Your task to perform on an android device: What's on the menu at Subway? Image 0: 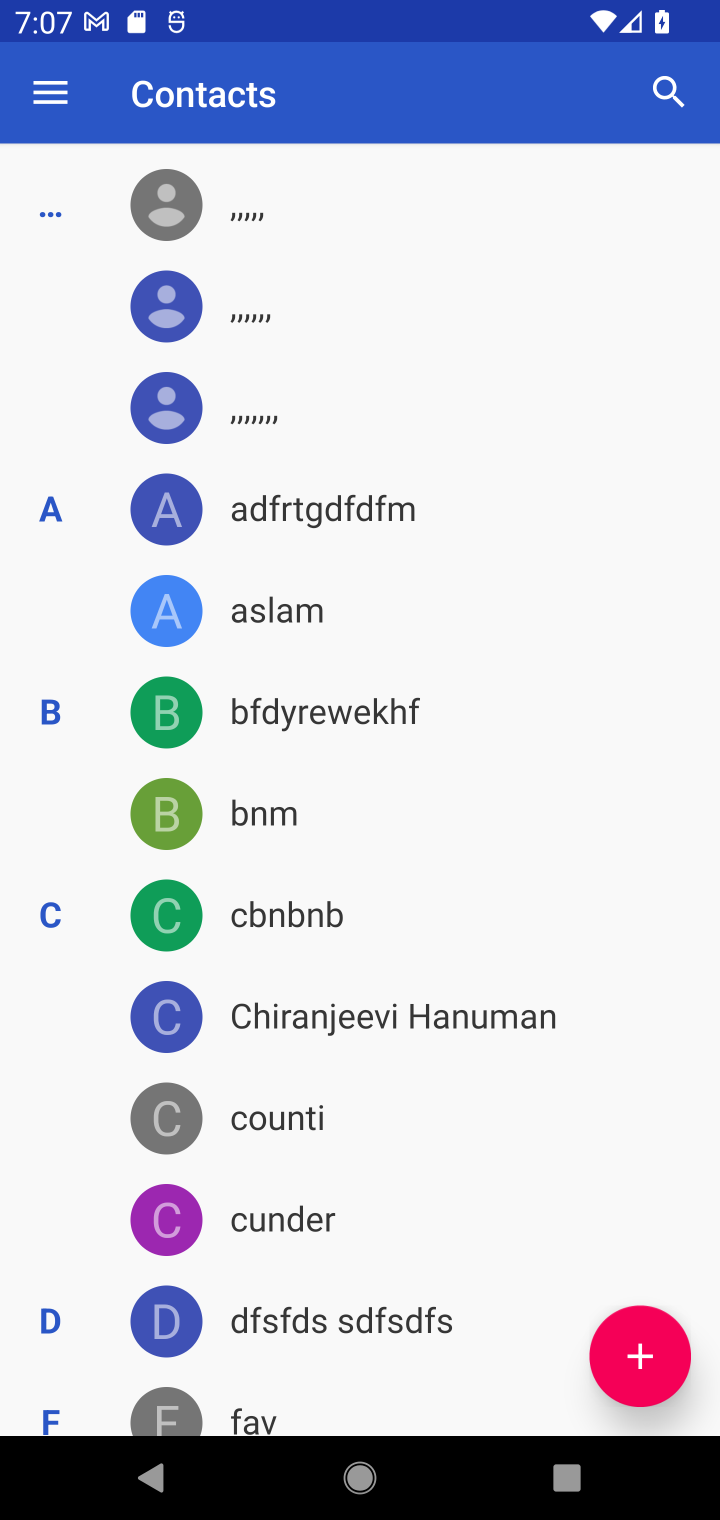
Step 0: press home button
Your task to perform on an android device: What's on the menu at Subway? Image 1: 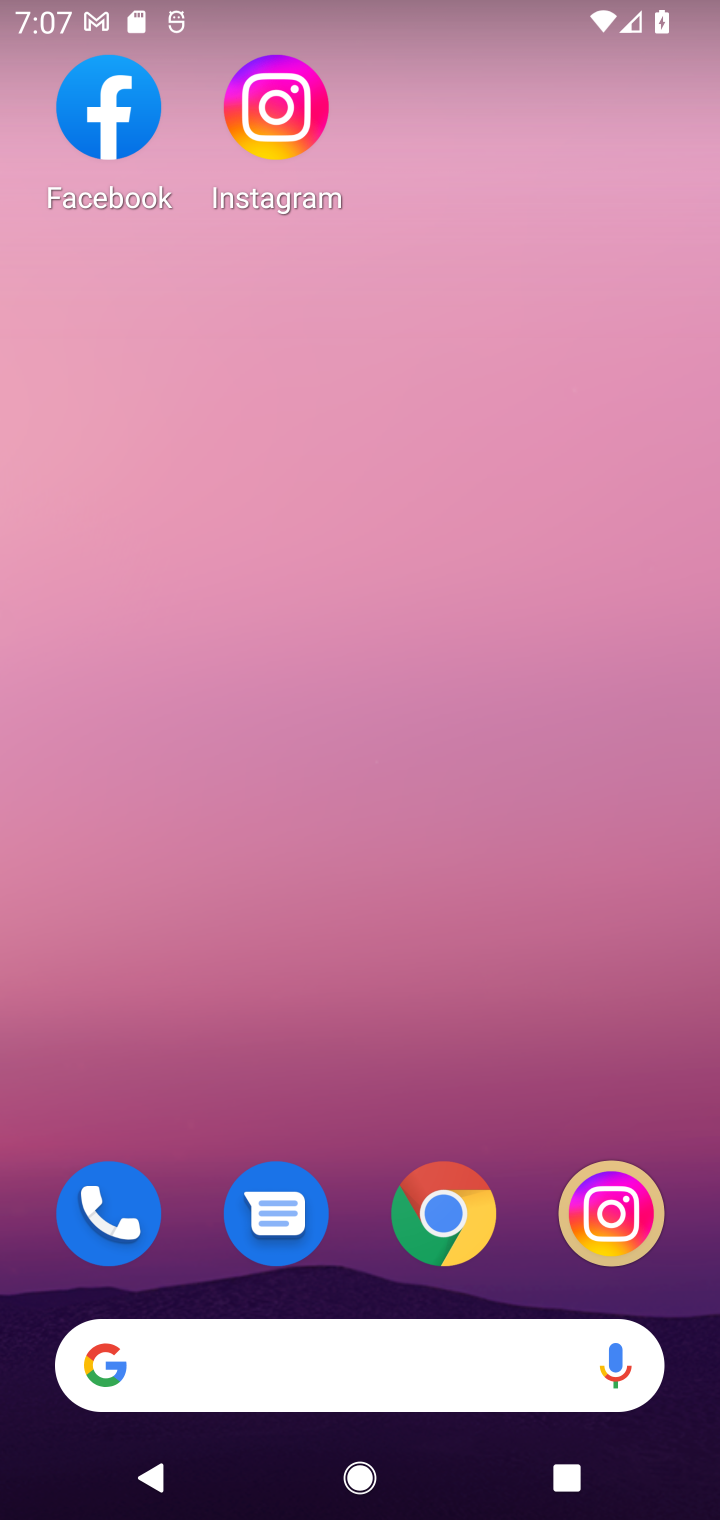
Step 1: drag from (246, 994) to (261, 419)
Your task to perform on an android device: What's on the menu at Subway? Image 2: 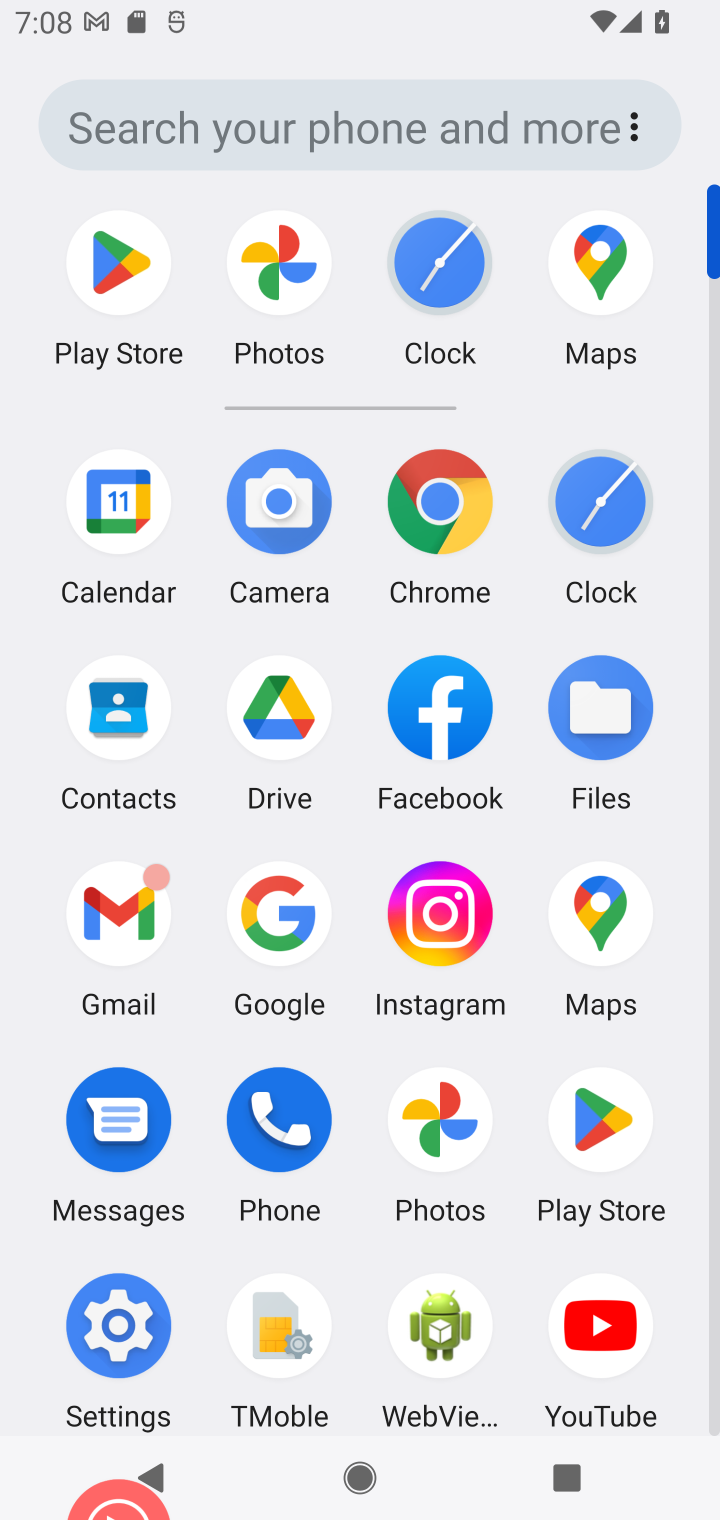
Step 2: click (260, 916)
Your task to perform on an android device: What's on the menu at Subway? Image 3: 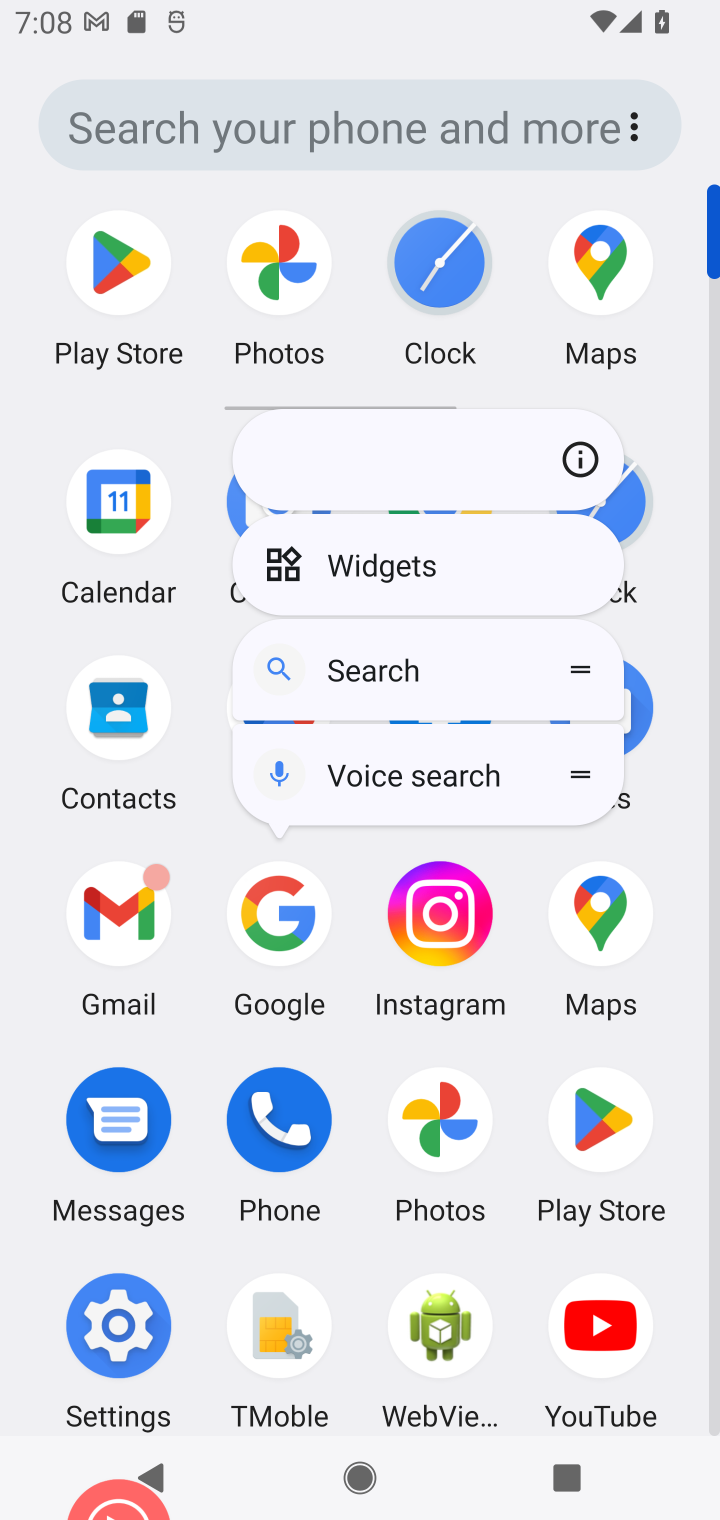
Step 3: click (263, 894)
Your task to perform on an android device: What's on the menu at Subway? Image 4: 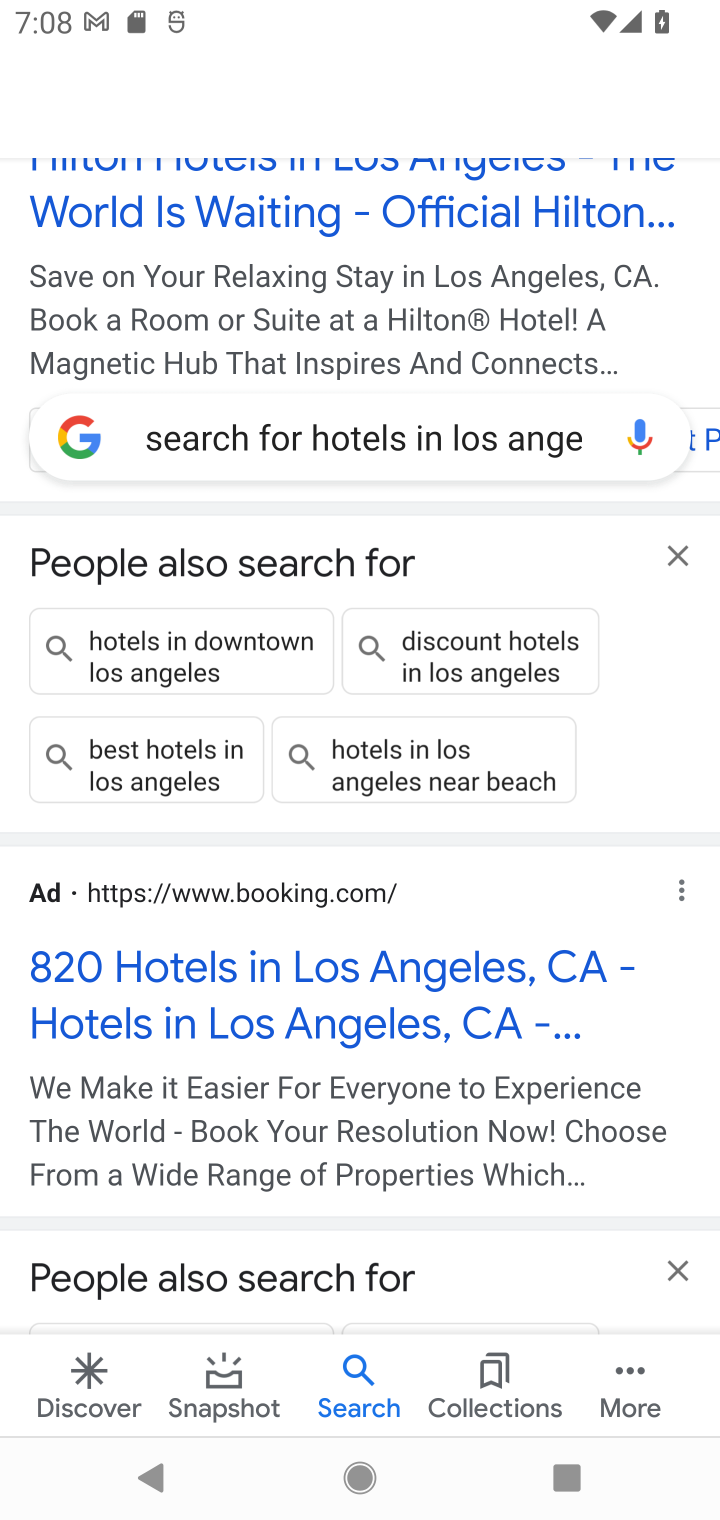
Step 4: click (286, 412)
Your task to perform on an android device: What's on the menu at Subway? Image 5: 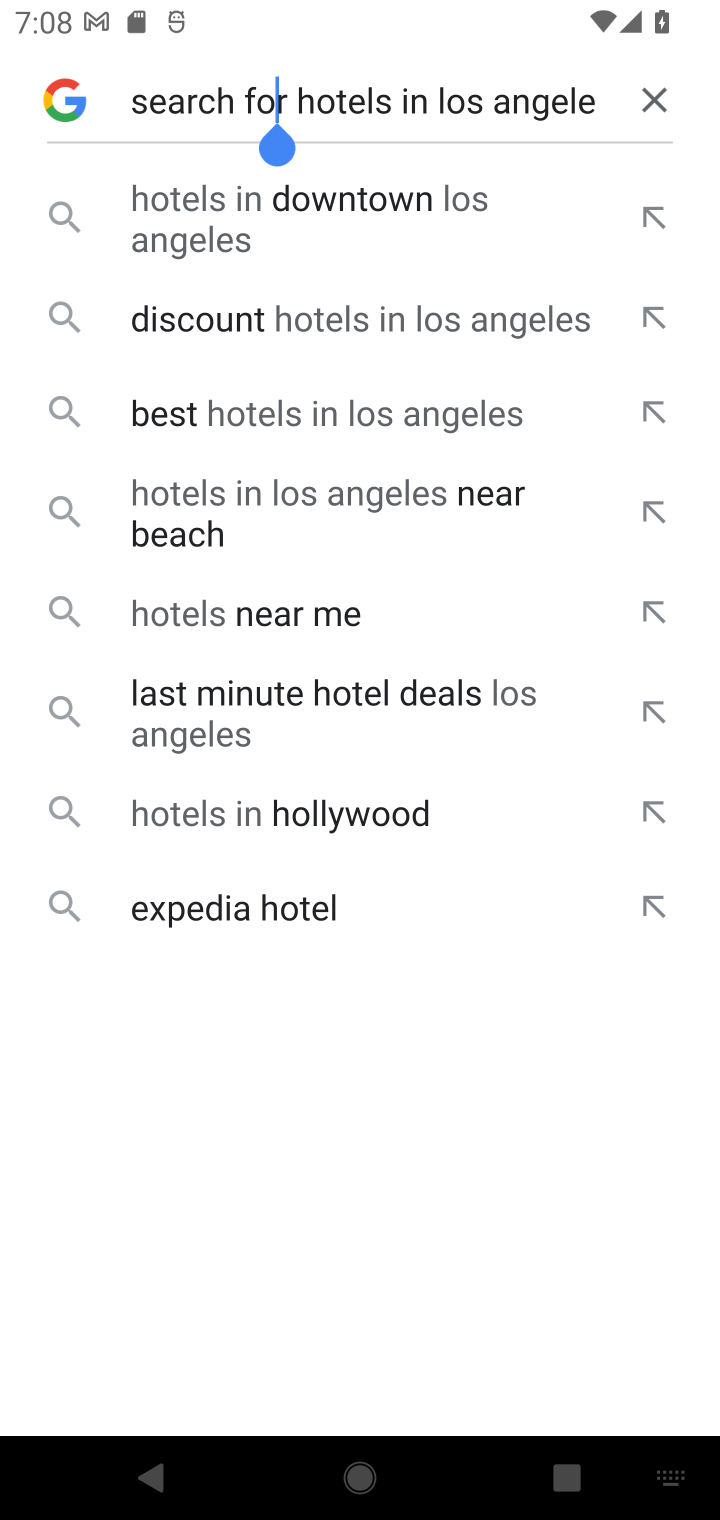
Step 5: click (653, 90)
Your task to perform on an android device: What's on the menu at Subway? Image 6: 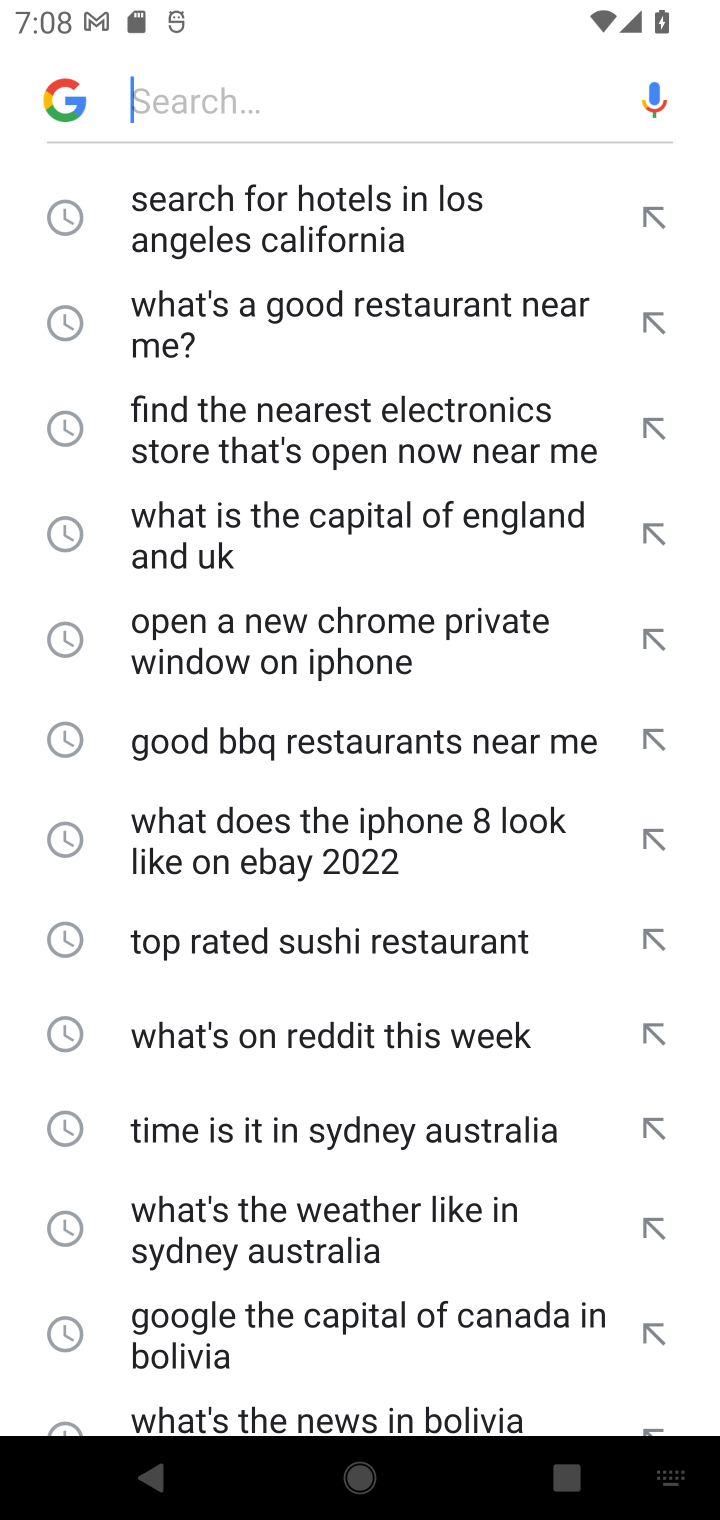
Step 6: drag from (286, 144) to (312, 72)
Your task to perform on an android device: What's on the menu at Subway? Image 7: 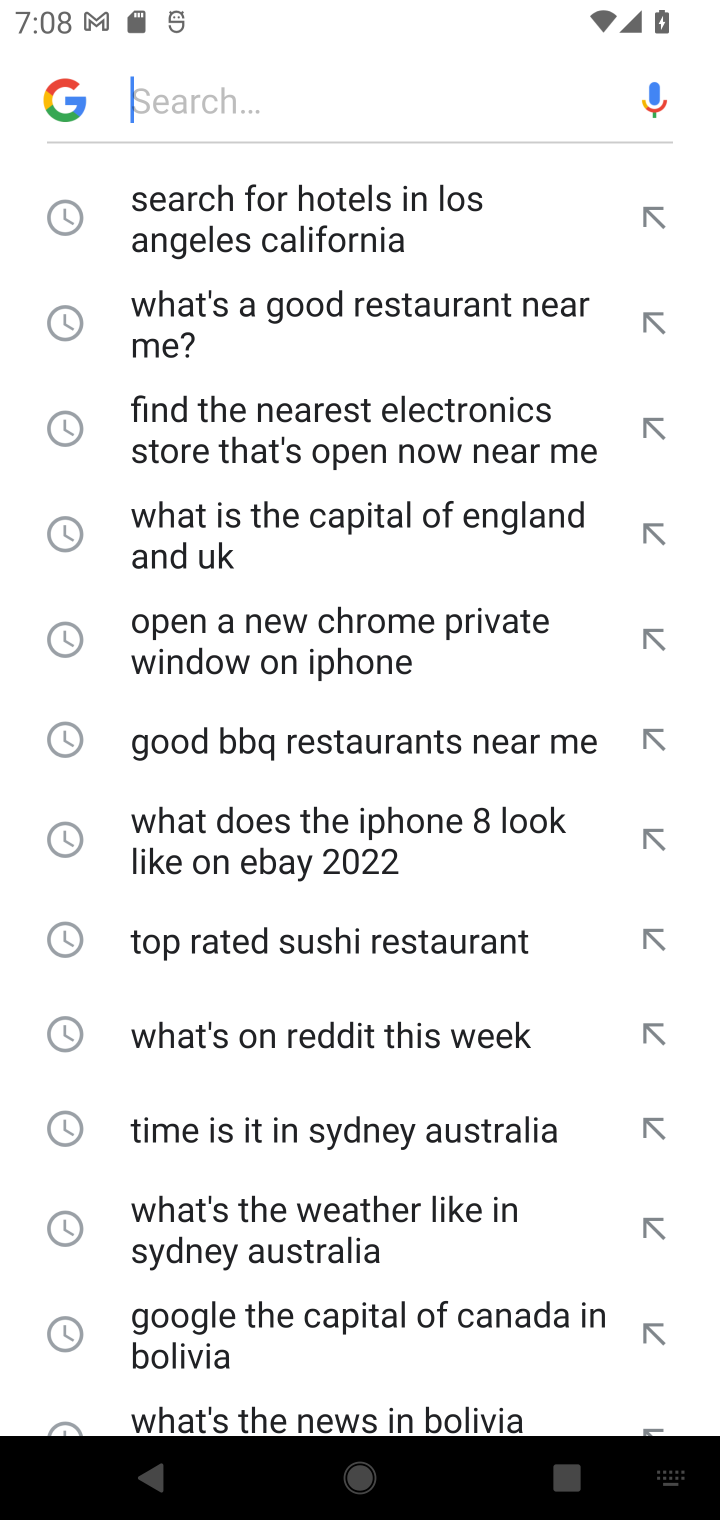
Step 7: type "What's on the menu at Subway? "
Your task to perform on an android device: What's on the menu at Subway? Image 8: 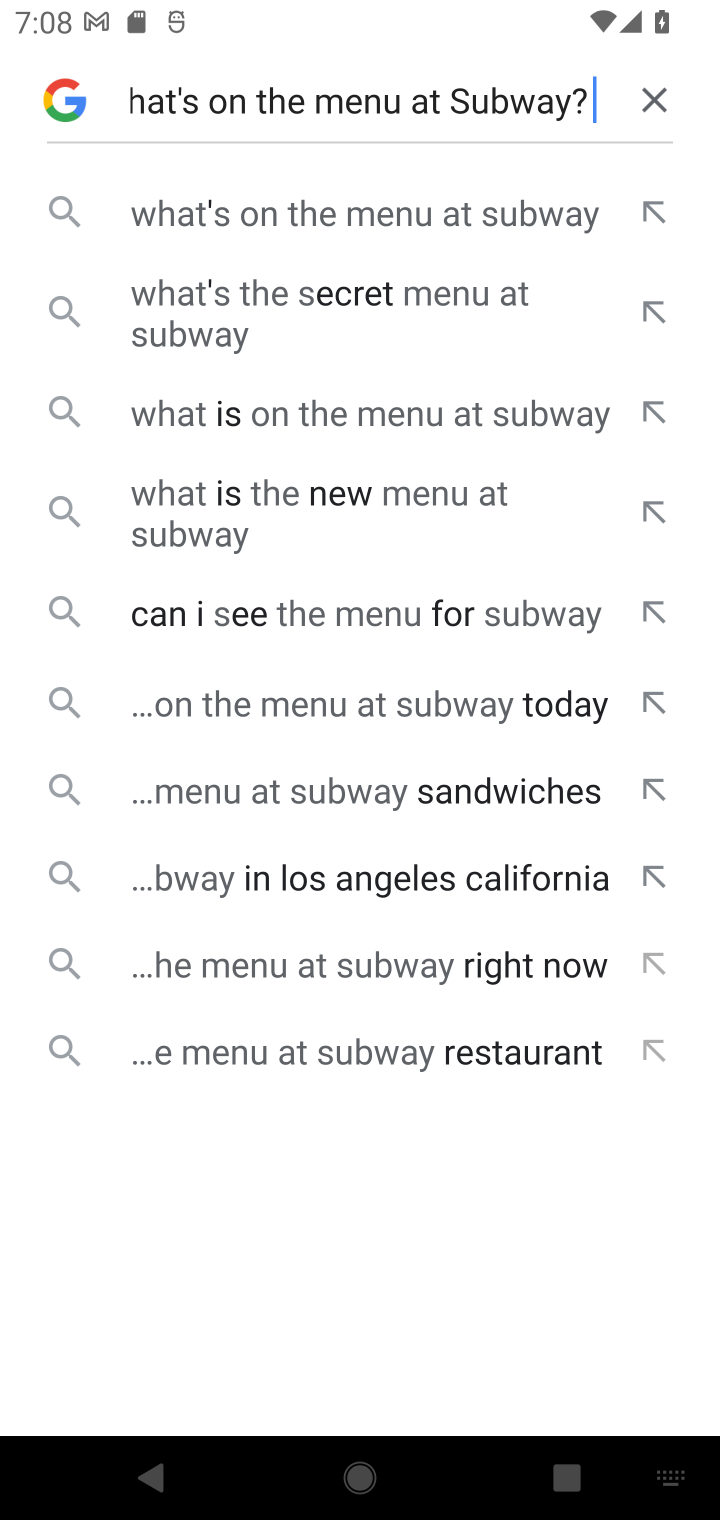
Step 8: click (281, 214)
Your task to perform on an android device: What's on the menu at Subway? Image 9: 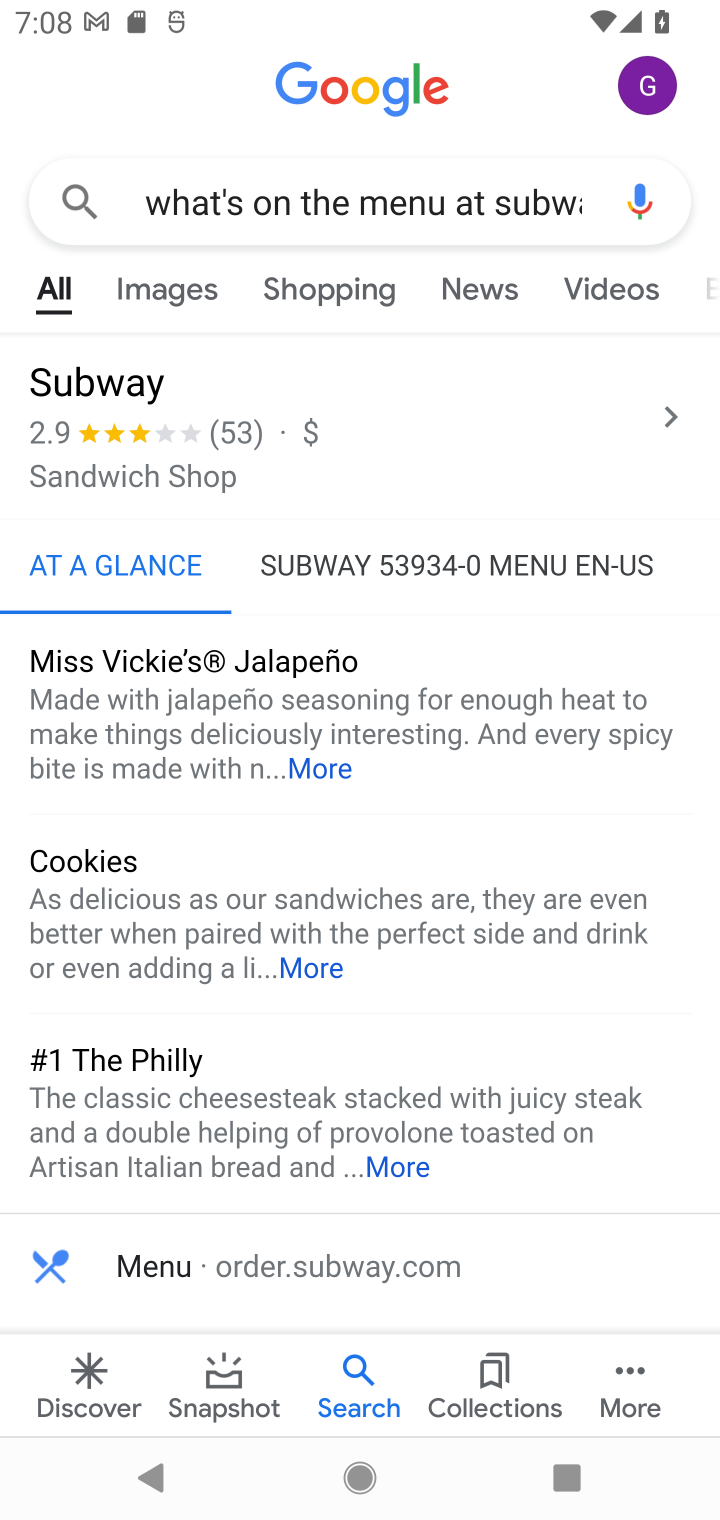
Step 9: drag from (344, 1204) to (379, 618)
Your task to perform on an android device: What's on the menu at Subway? Image 10: 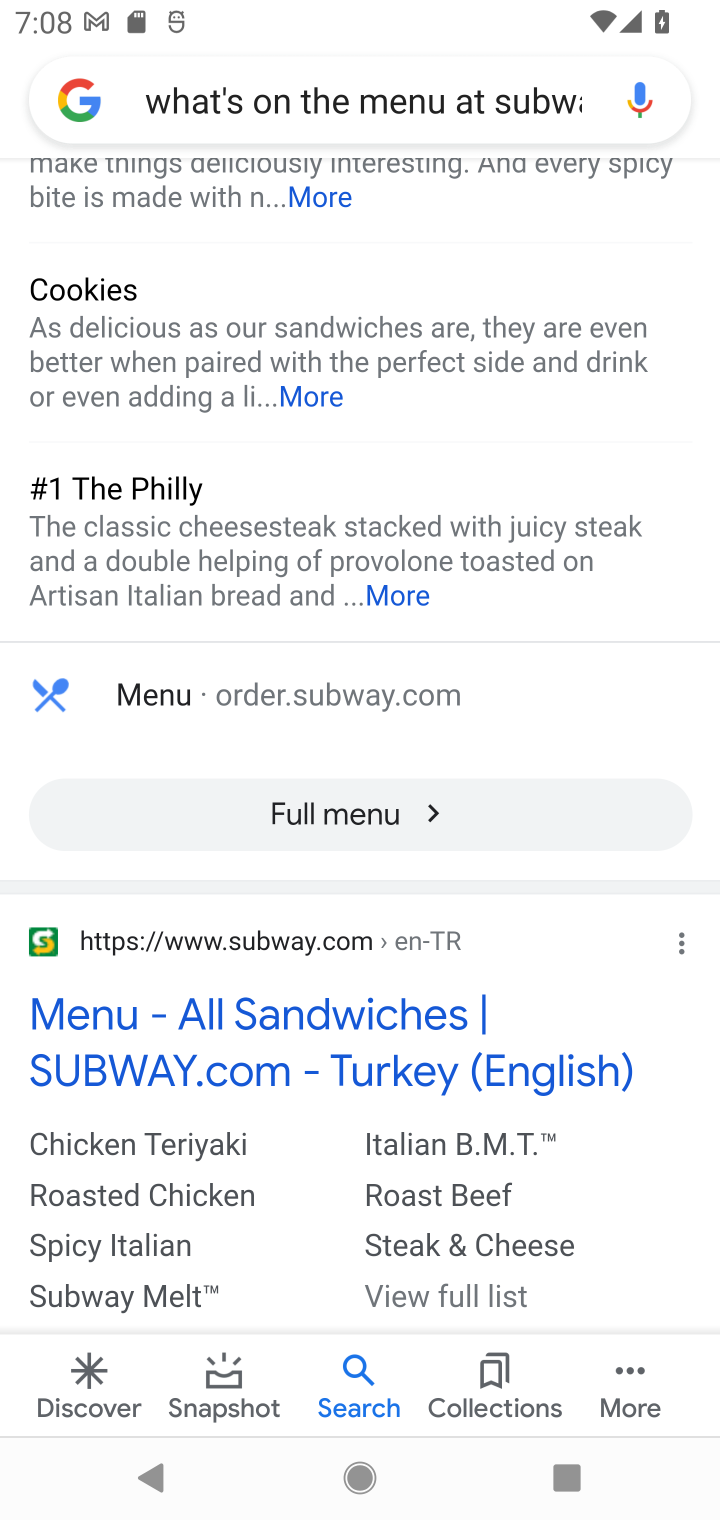
Step 10: click (411, 852)
Your task to perform on an android device: What's on the menu at Subway? Image 11: 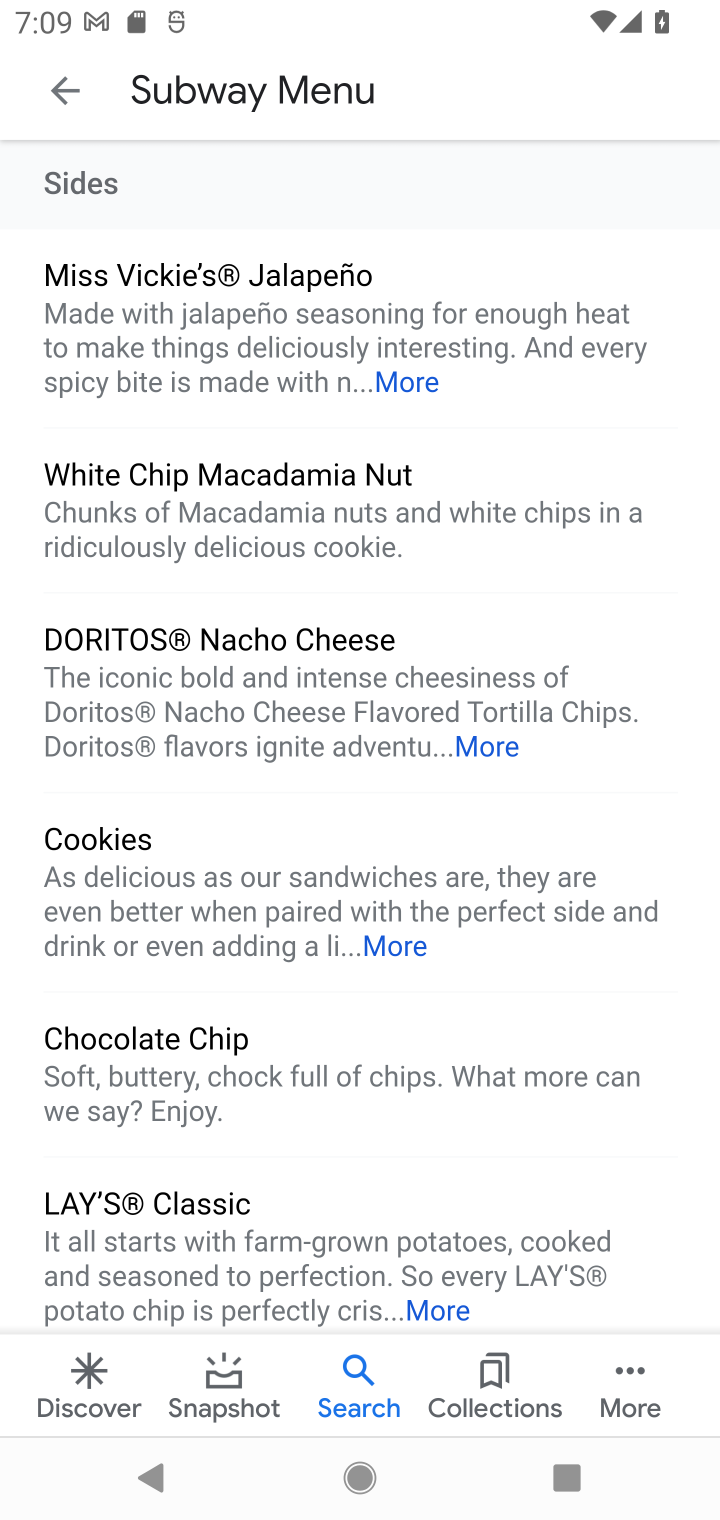
Step 11: task complete